Your task to perform on an android device: Go to location settings Image 0: 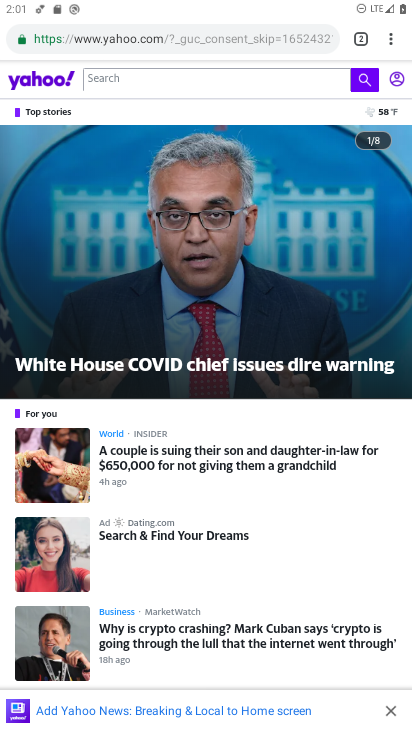
Step 0: press home button
Your task to perform on an android device: Go to location settings Image 1: 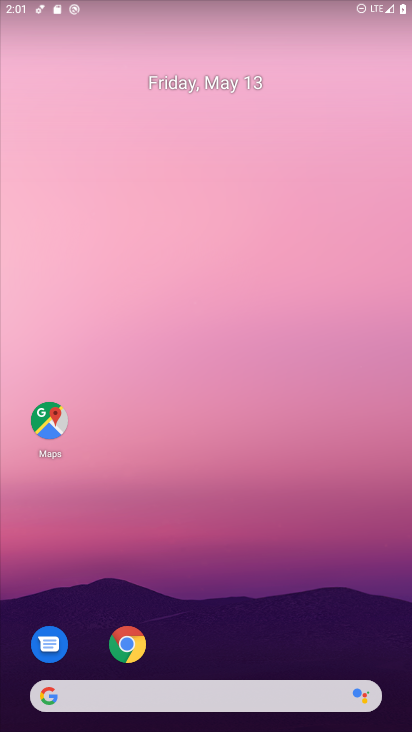
Step 1: drag from (348, 651) to (204, 68)
Your task to perform on an android device: Go to location settings Image 2: 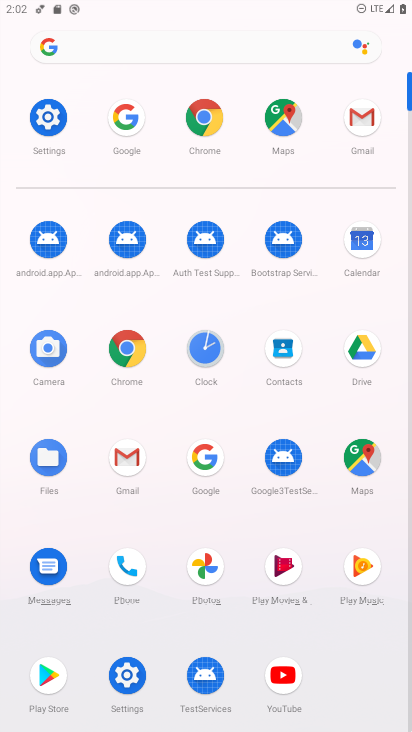
Step 2: click (128, 695)
Your task to perform on an android device: Go to location settings Image 3: 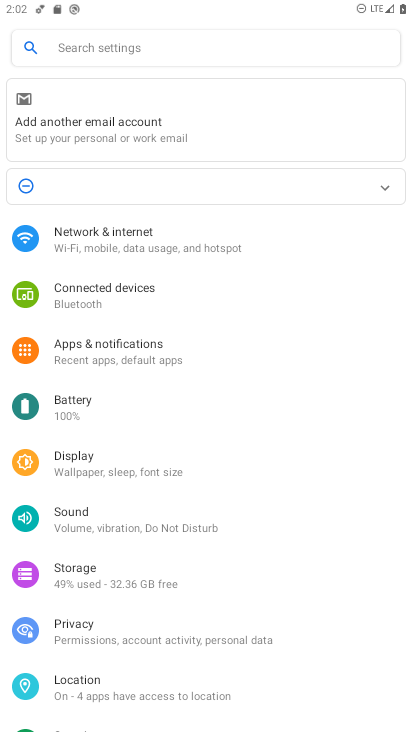
Step 3: click (145, 687)
Your task to perform on an android device: Go to location settings Image 4: 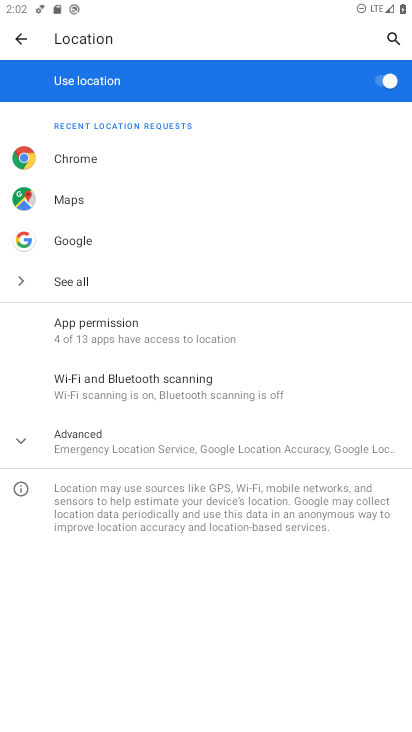
Step 4: task complete